Your task to perform on an android device: Go to Yahoo.com Image 0: 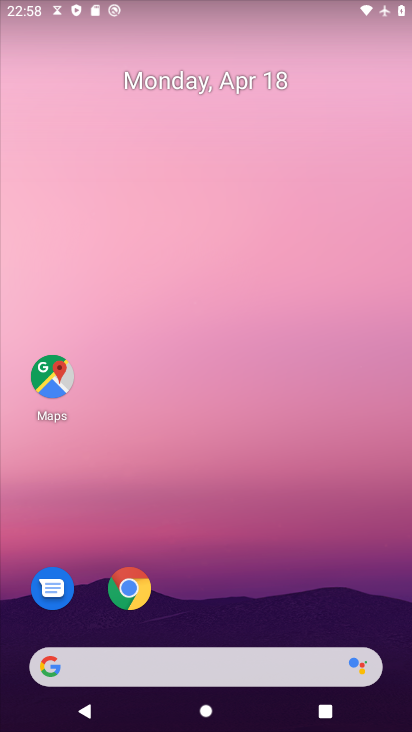
Step 0: drag from (366, 587) to (280, 3)
Your task to perform on an android device: Go to Yahoo.com Image 1: 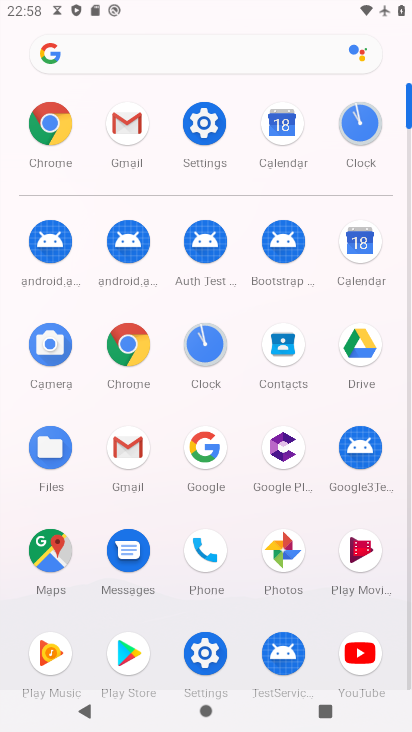
Step 1: click (47, 120)
Your task to perform on an android device: Go to Yahoo.com Image 2: 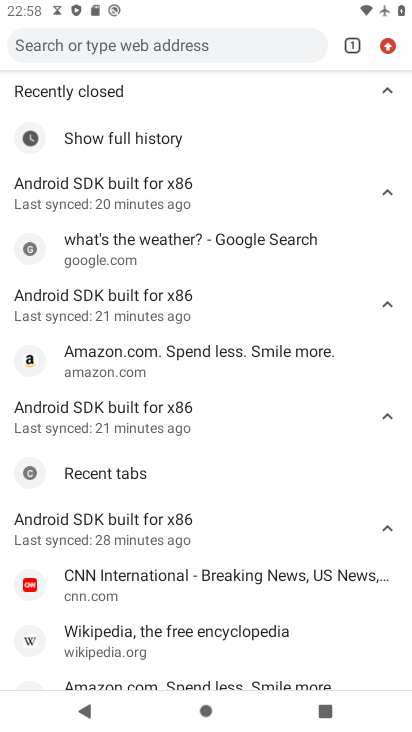
Step 2: click (195, 47)
Your task to perform on an android device: Go to Yahoo.com Image 3: 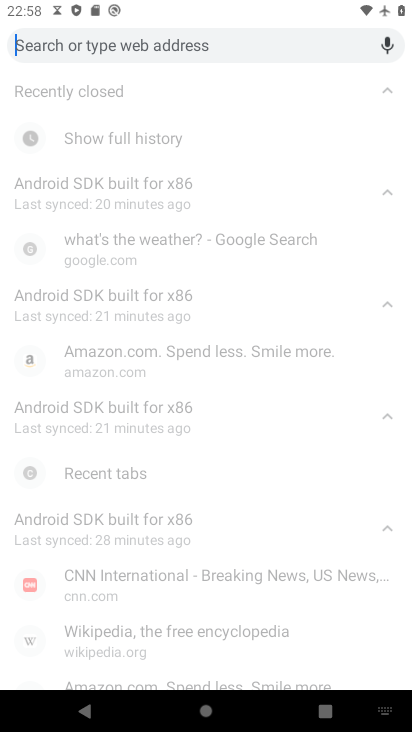
Step 3: type "Yahoo.com"
Your task to perform on an android device: Go to Yahoo.com Image 4: 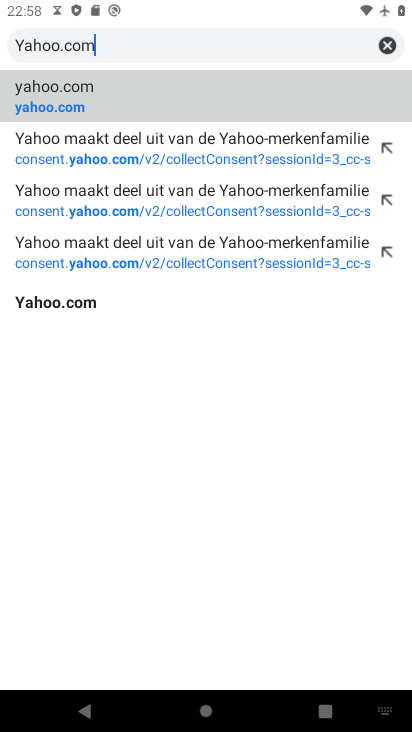
Step 4: type ""
Your task to perform on an android device: Go to Yahoo.com Image 5: 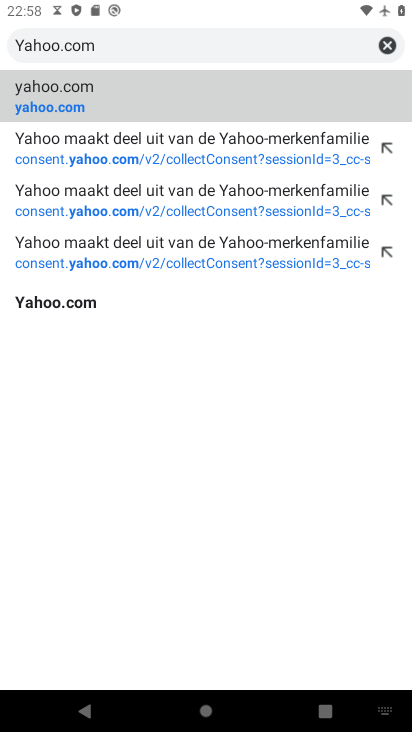
Step 5: click (168, 95)
Your task to perform on an android device: Go to Yahoo.com Image 6: 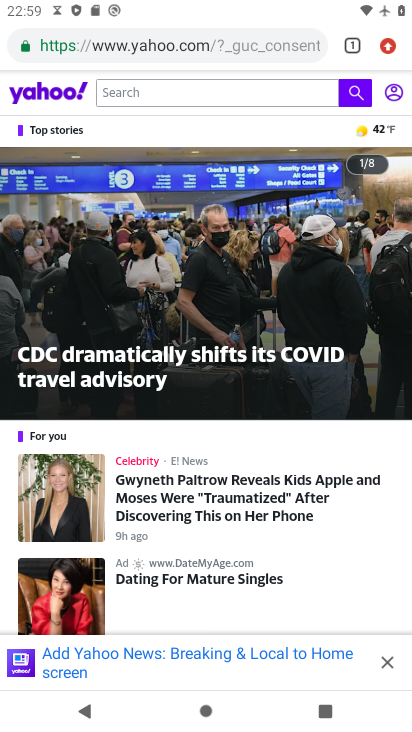
Step 6: task complete